Your task to perform on an android device: Go to display settings Image 0: 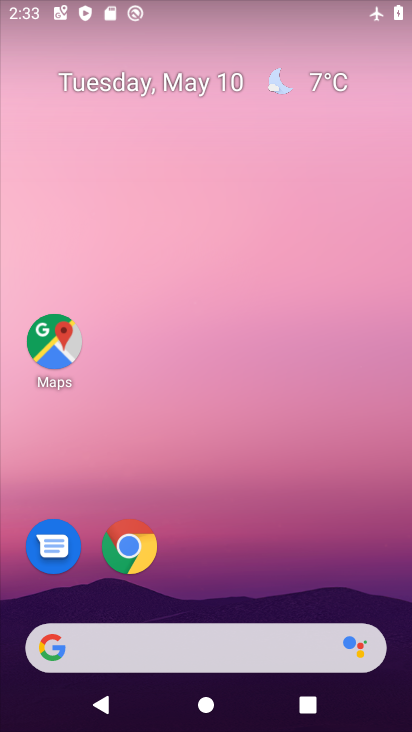
Step 0: drag from (263, 534) to (227, 25)
Your task to perform on an android device: Go to display settings Image 1: 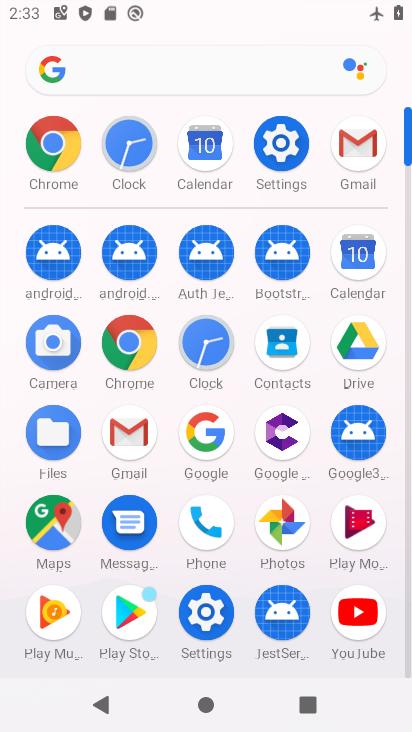
Step 1: click (271, 149)
Your task to perform on an android device: Go to display settings Image 2: 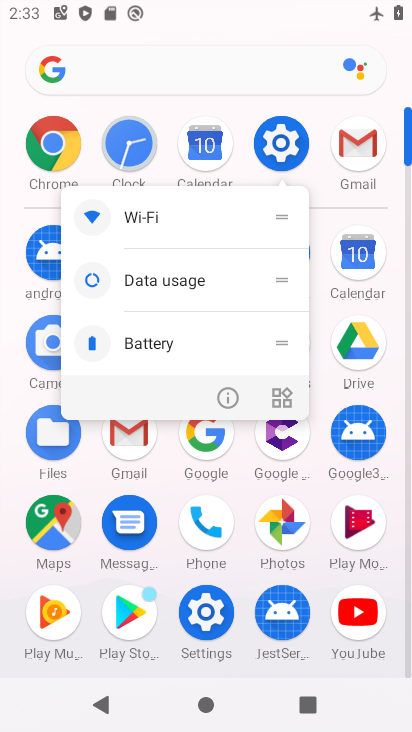
Step 2: click (271, 149)
Your task to perform on an android device: Go to display settings Image 3: 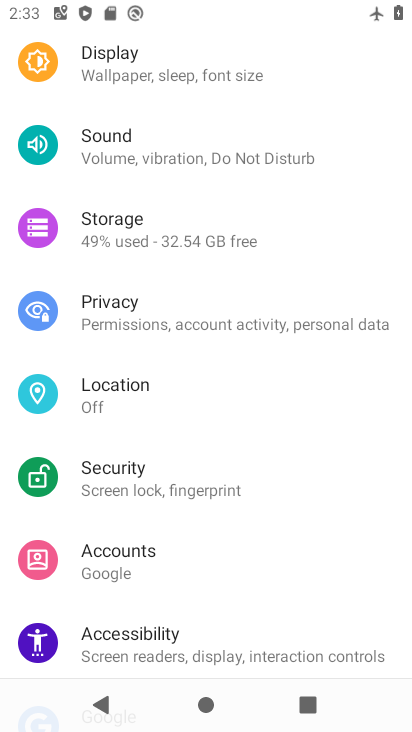
Step 3: click (118, 86)
Your task to perform on an android device: Go to display settings Image 4: 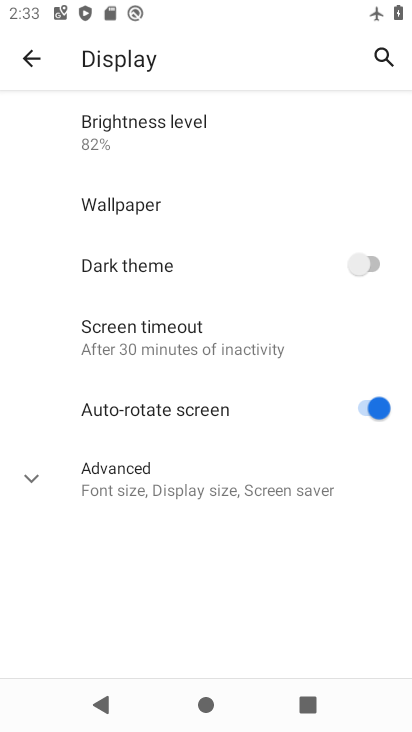
Step 4: task complete